Your task to perform on an android device: Open Chrome and go to settings Image 0: 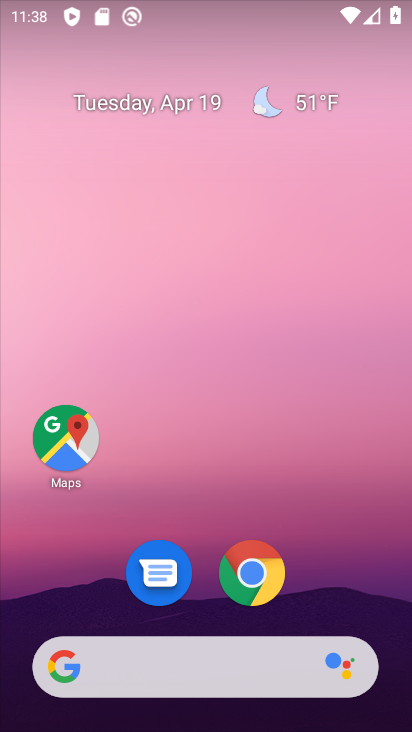
Step 0: press home button
Your task to perform on an android device: Open Chrome and go to settings Image 1: 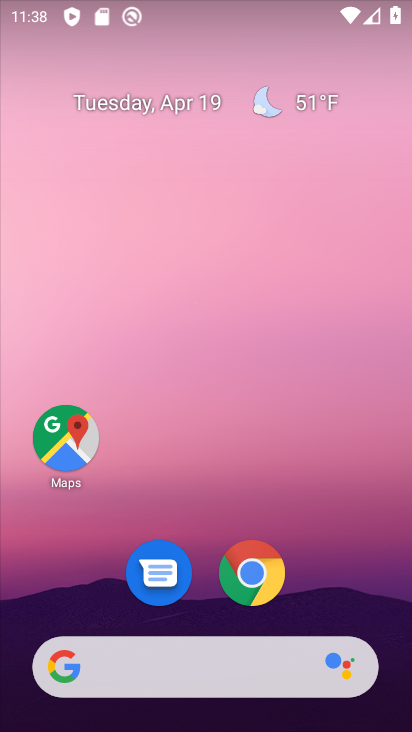
Step 1: click (272, 579)
Your task to perform on an android device: Open Chrome and go to settings Image 2: 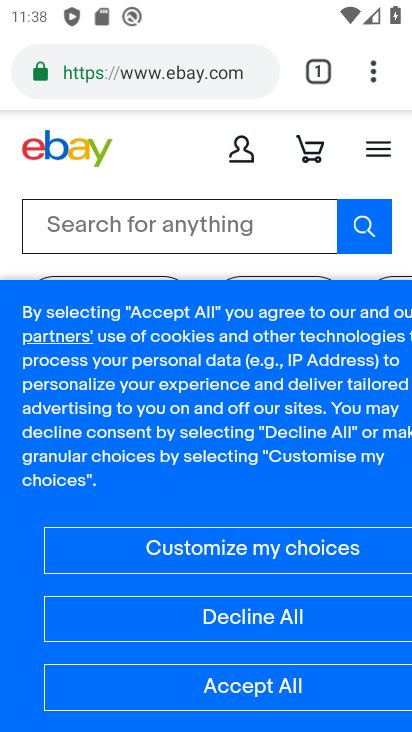
Step 2: task complete